Your task to perform on an android device: see creations saved in the google photos Image 0: 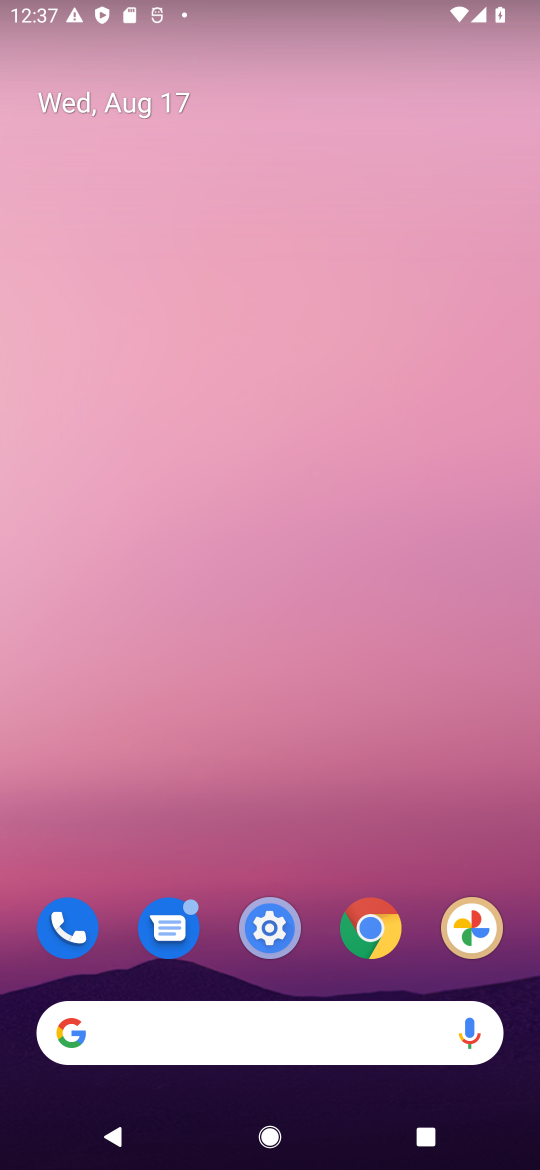
Step 0: click (289, 812)
Your task to perform on an android device: see creations saved in the google photos Image 1: 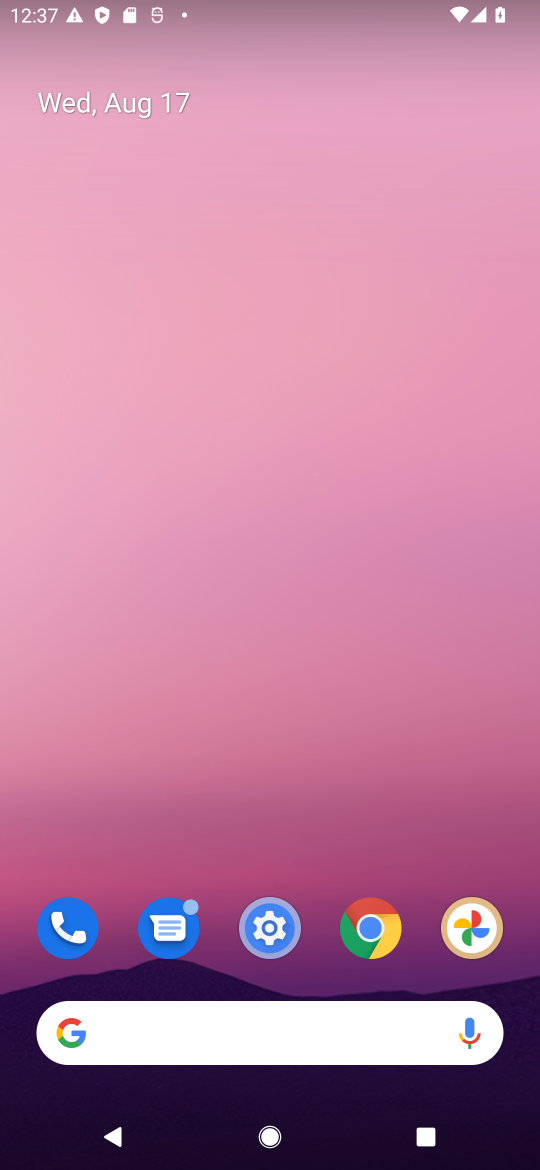
Step 1: click (474, 948)
Your task to perform on an android device: see creations saved in the google photos Image 2: 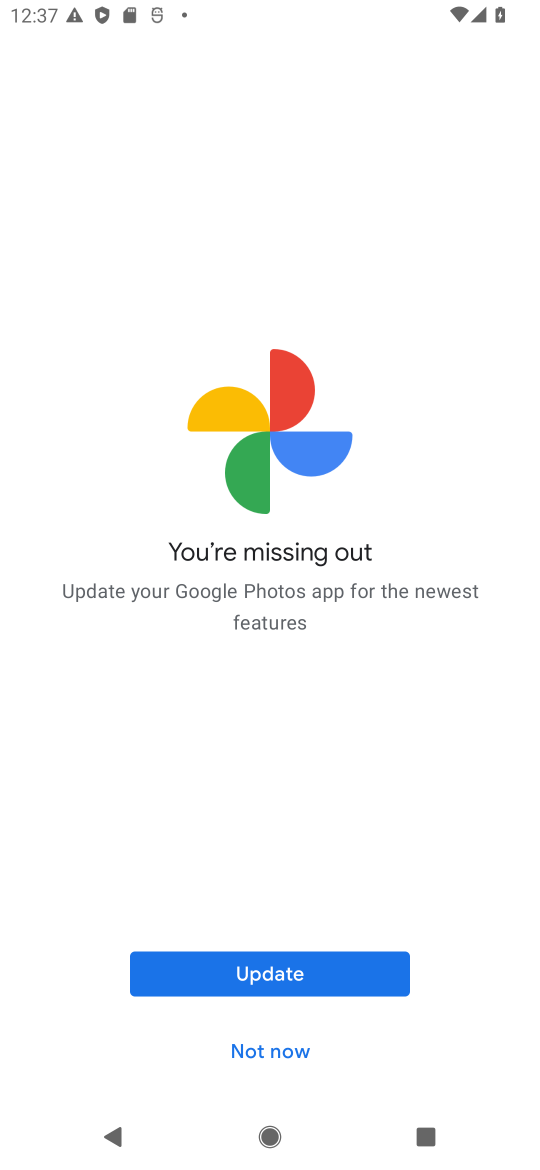
Step 2: click (275, 1039)
Your task to perform on an android device: see creations saved in the google photos Image 3: 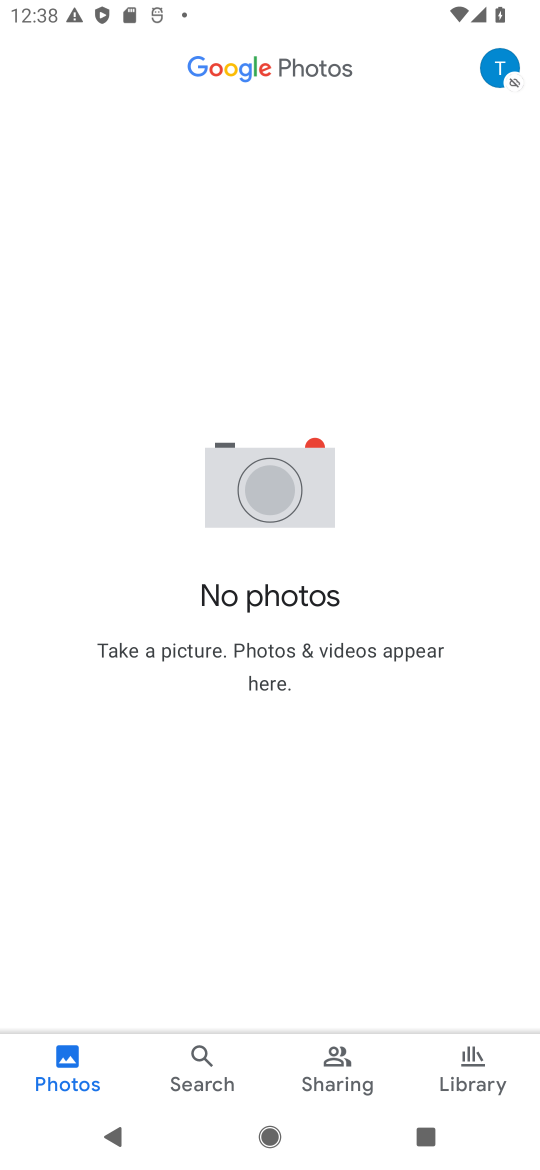
Step 3: task complete